Your task to perform on an android device: turn vacation reply on in the gmail app Image 0: 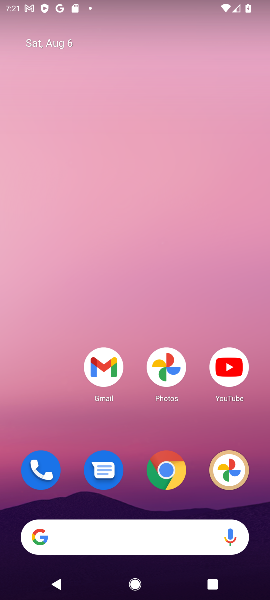
Step 0: drag from (203, 214) to (232, 21)
Your task to perform on an android device: turn vacation reply on in the gmail app Image 1: 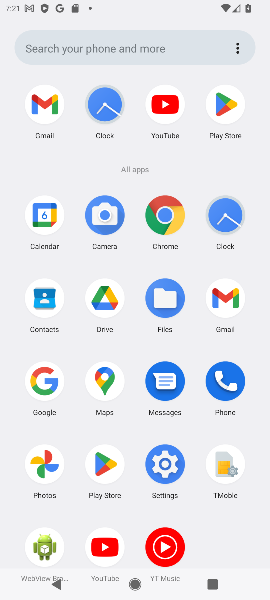
Step 1: click (235, 304)
Your task to perform on an android device: turn vacation reply on in the gmail app Image 2: 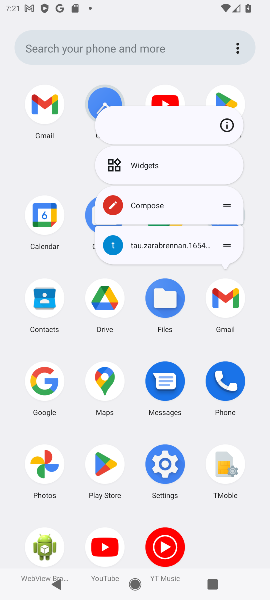
Step 2: click (230, 315)
Your task to perform on an android device: turn vacation reply on in the gmail app Image 3: 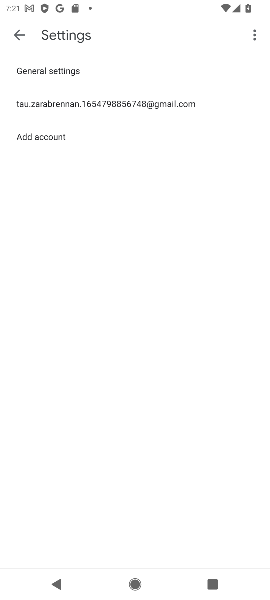
Step 3: click (121, 111)
Your task to perform on an android device: turn vacation reply on in the gmail app Image 4: 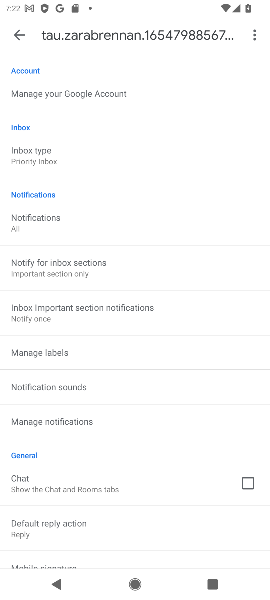
Step 4: drag from (68, 352) to (112, 111)
Your task to perform on an android device: turn vacation reply on in the gmail app Image 5: 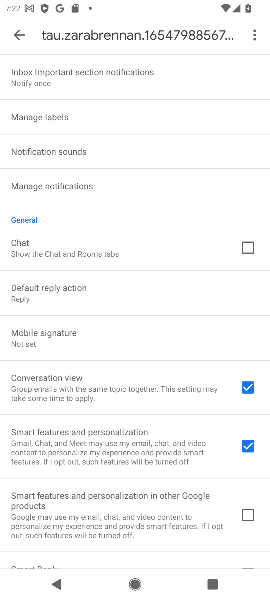
Step 5: drag from (78, 463) to (108, 135)
Your task to perform on an android device: turn vacation reply on in the gmail app Image 6: 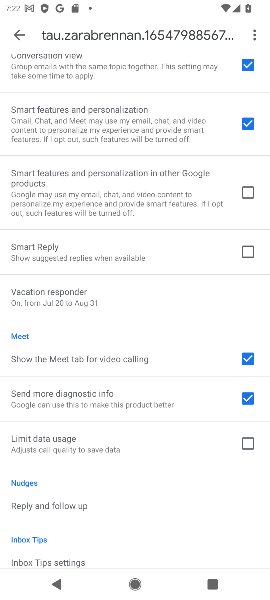
Step 6: click (126, 294)
Your task to perform on an android device: turn vacation reply on in the gmail app Image 7: 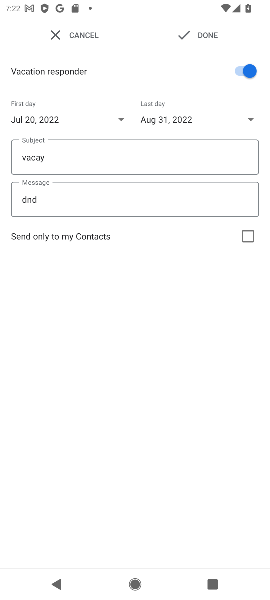
Step 7: task complete